Your task to perform on an android device: delete location history Image 0: 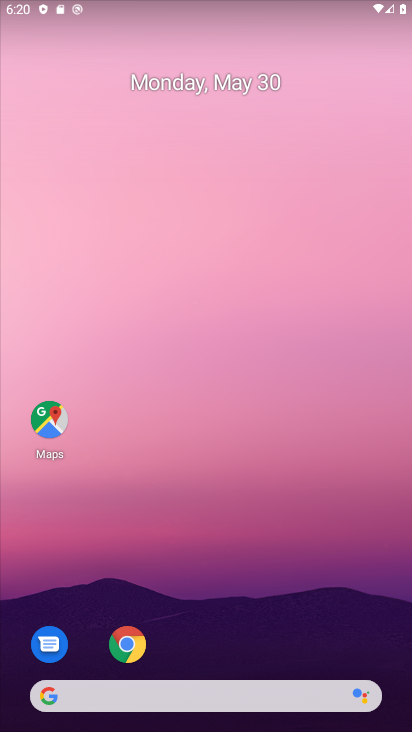
Step 0: drag from (214, 650) to (287, 169)
Your task to perform on an android device: delete location history Image 1: 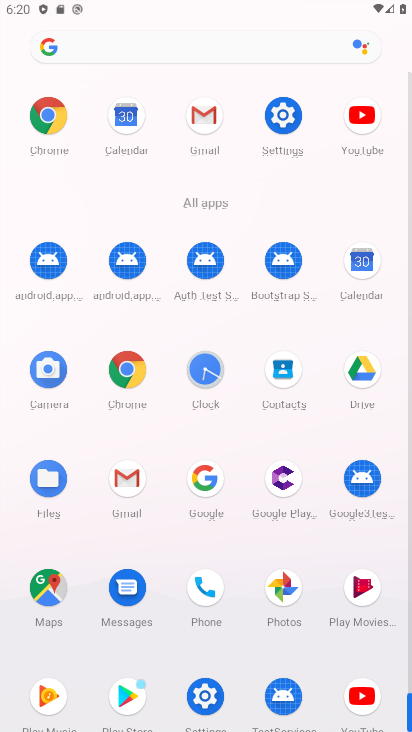
Step 1: click (51, 592)
Your task to perform on an android device: delete location history Image 2: 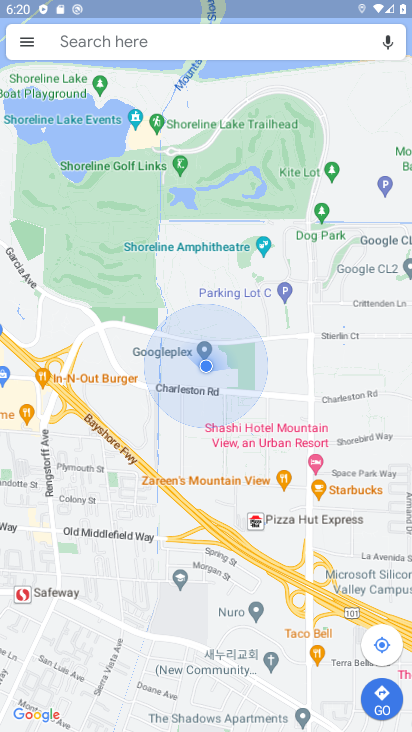
Step 2: click (25, 44)
Your task to perform on an android device: delete location history Image 3: 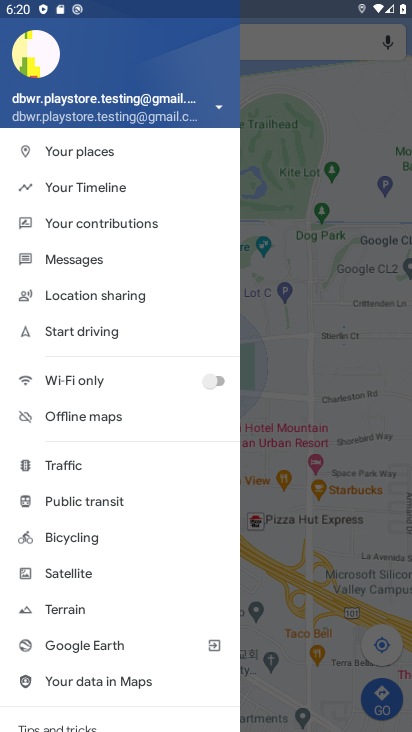
Step 3: click (70, 186)
Your task to perform on an android device: delete location history Image 4: 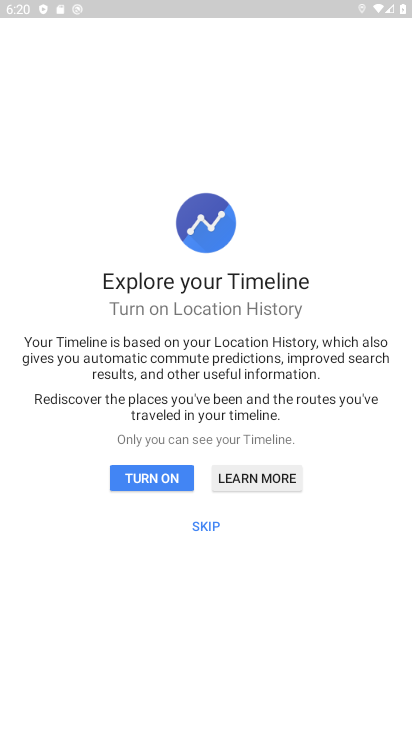
Step 4: click (197, 530)
Your task to perform on an android device: delete location history Image 5: 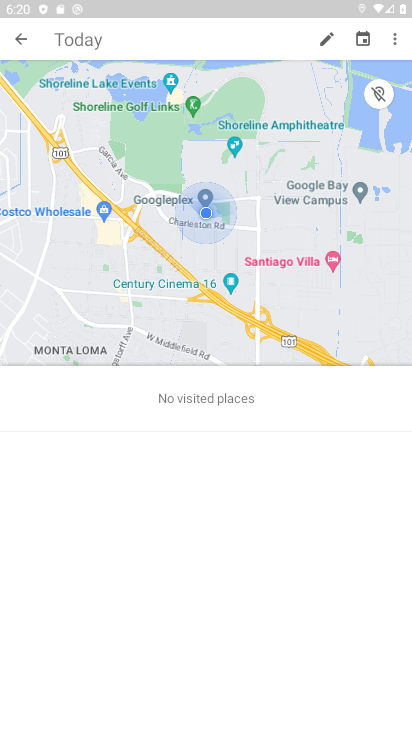
Step 5: click (395, 42)
Your task to perform on an android device: delete location history Image 6: 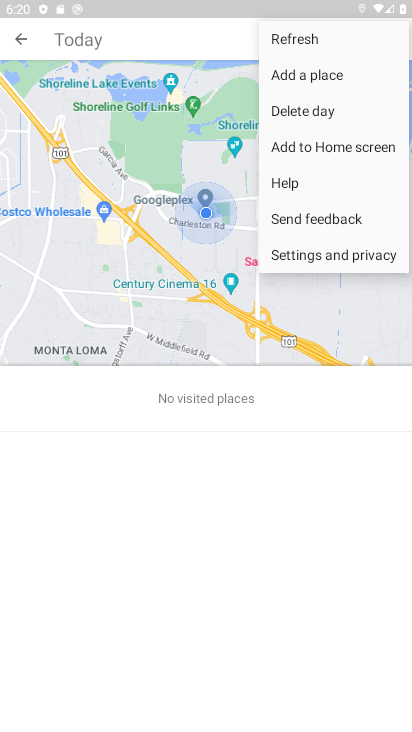
Step 6: click (299, 254)
Your task to perform on an android device: delete location history Image 7: 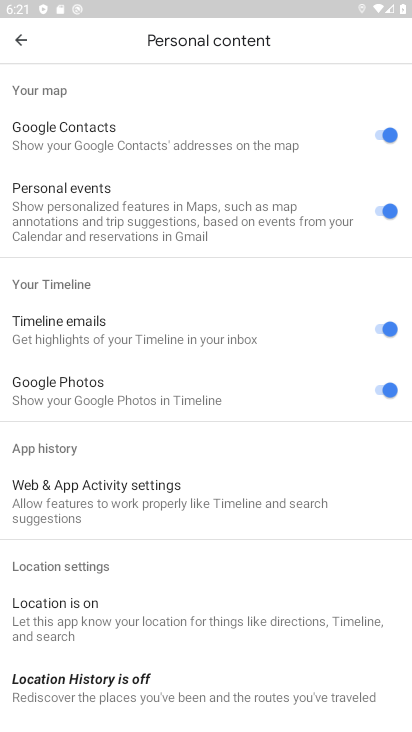
Step 7: drag from (186, 663) to (249, 177)
Your task to perform on an android device: delete location history Image 8: 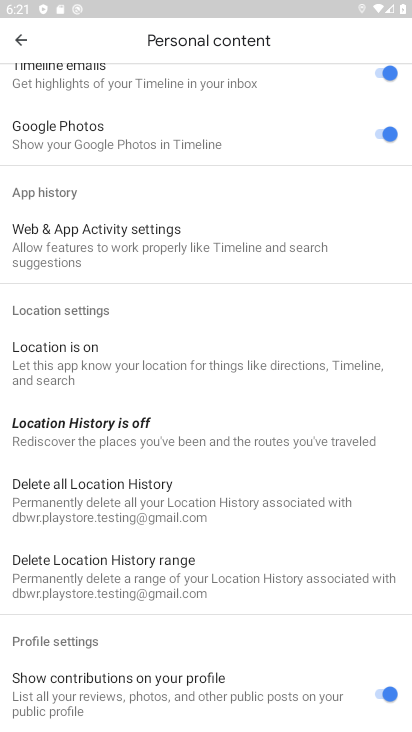
Step 8: click (106, 494)
Your task to perform on an android device: delete location history Image 9: 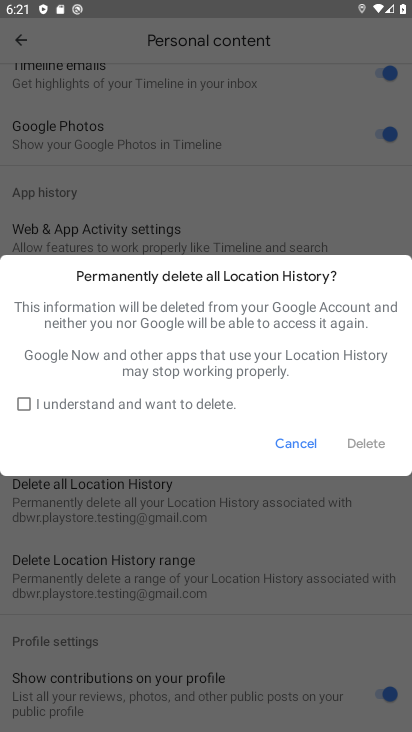
Step 9: click (25, 397)
Your task to perform on an android device: delete location history Image 10: 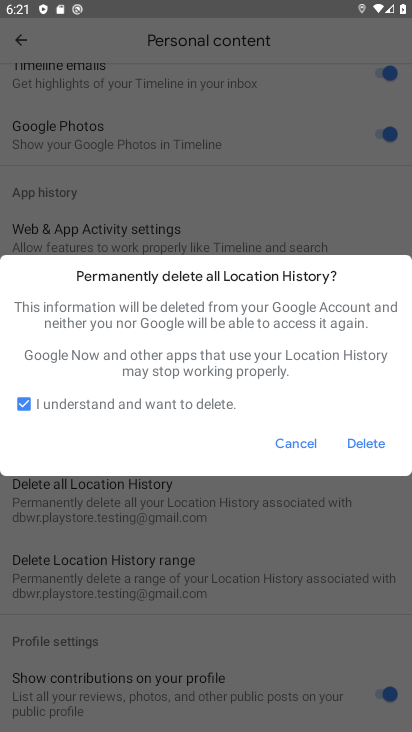
Step 10: click (349, 435)
Your task to perform on an android device: delete location history Image 11: 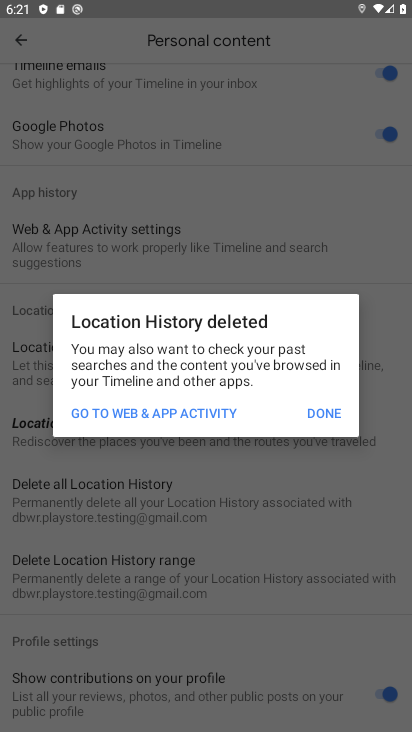
Step 11: click (324, 422)
Your task to perform on an android device: delete location history Image 12: 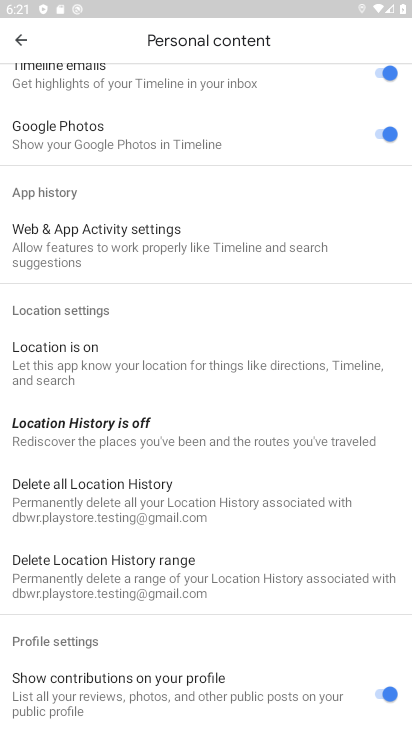
Step 12: task complete